Your task to perform on an android device: Open Google Image 0: 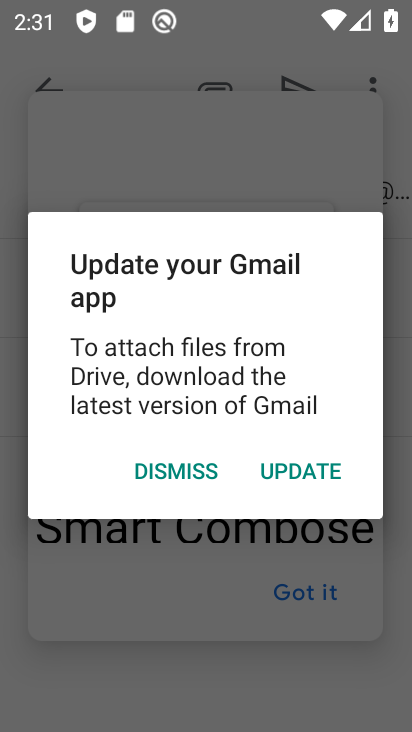
Step 0: press home button
Your task to perform on an android device: Open Google Image 1: 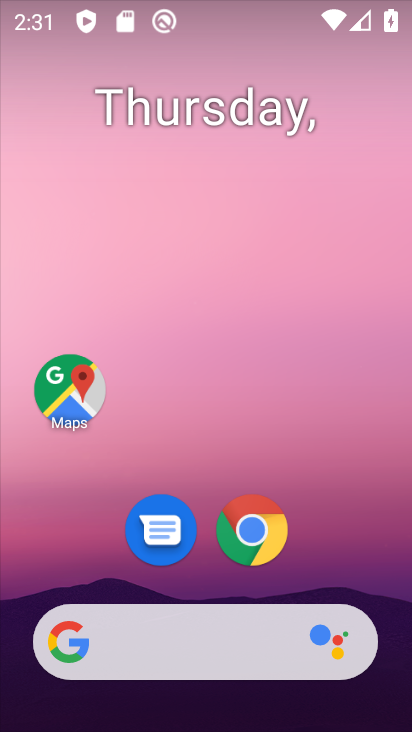
Step 1: drag from (373, 536) to (372, 79)
Your task to perform on an android device: Open Google Image 2: 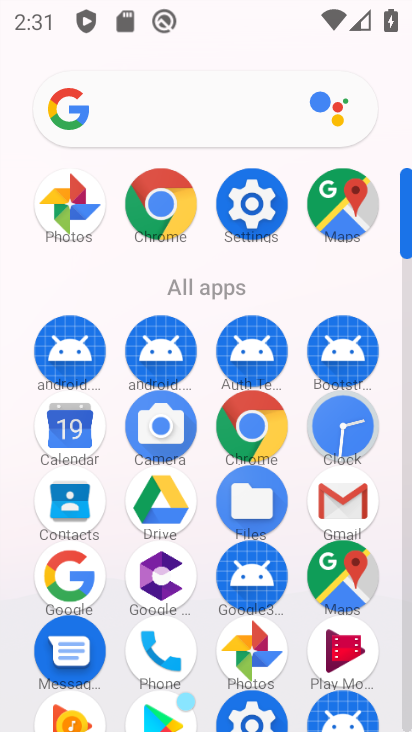
Step 2: click (407, 621)
Your task to perform on an android device: Open Google Image 3: 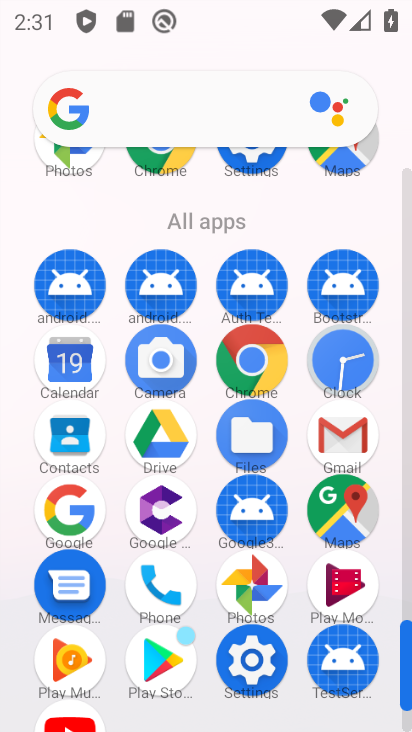
Step 3: click (84, 527)
Your task to perform on an android device: Open Google Image 4: 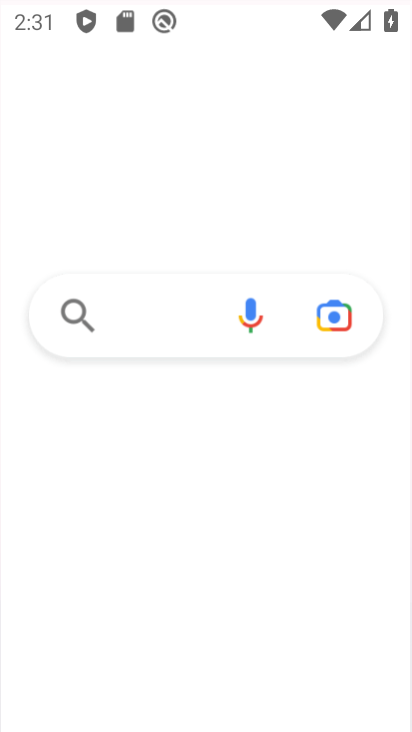
Step 4: click (84, 527)
Your task to perform on an android device: Open Google Image 5: 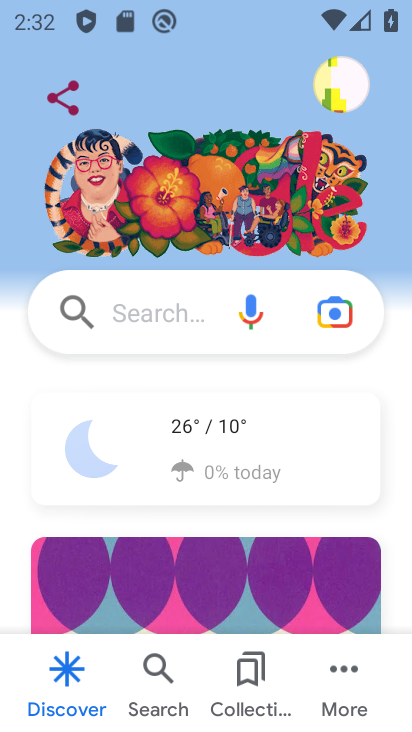
Step 5: task complete